Your task to perform on an android device: Open wifi settings Image 0: 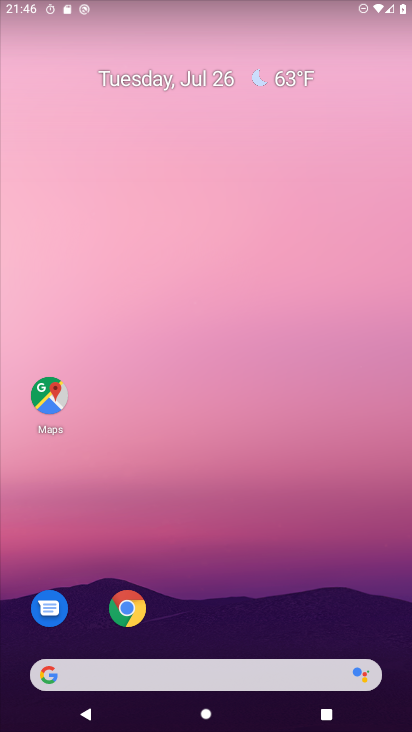
Step 0: drag from (29, 689) to (287, 242)
Your task to perform on an android device: Open wifi settings Image 1: 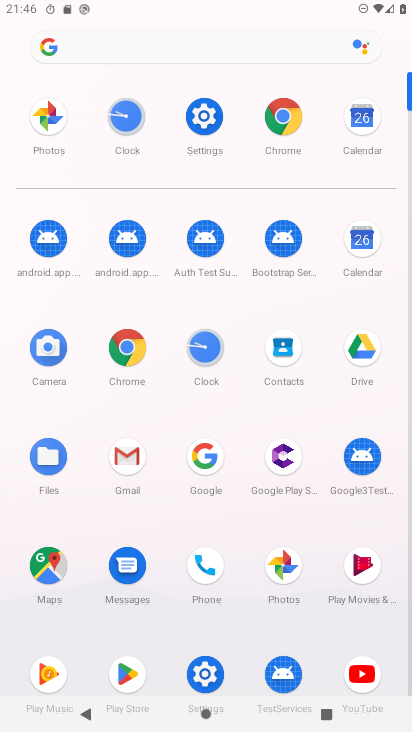
Step 1: click (208, 671)
Your task to perform on an android device: Open wifi settings Image 2: 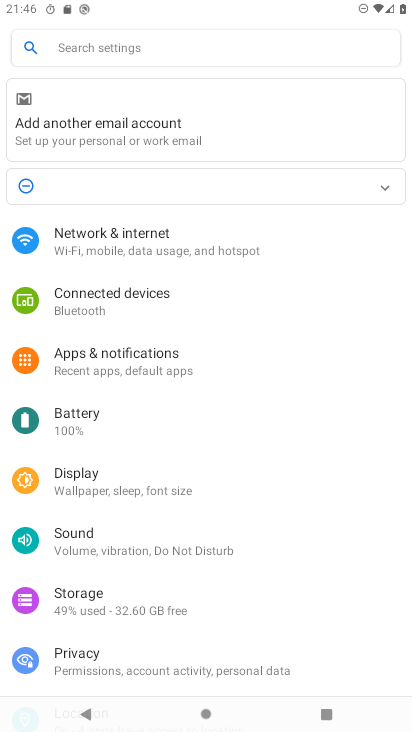
Step 2: click (171, 238)
Your task to perform on an android device: Open wifi settings Image 3: 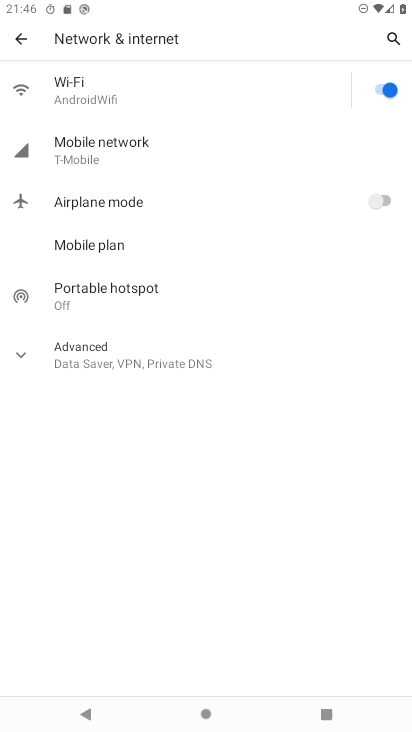
Step 3: task complete